Your task to perform on an android device: open a bookmark in the chrome app Image 0: 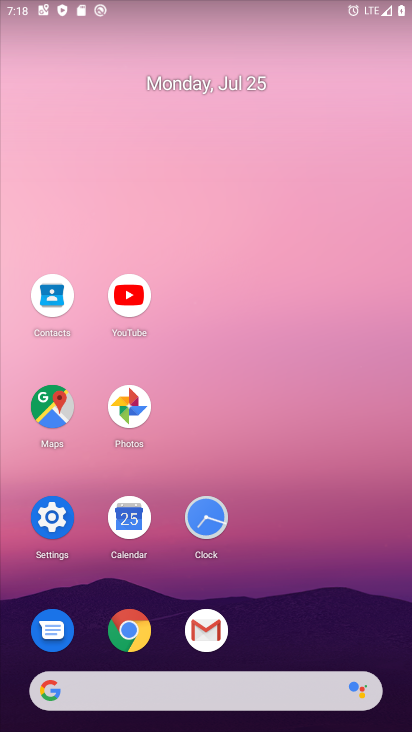
Step 0: click (127, 631)
Your task to perform on an android device: open a bookmark in the chrome app Image 1: 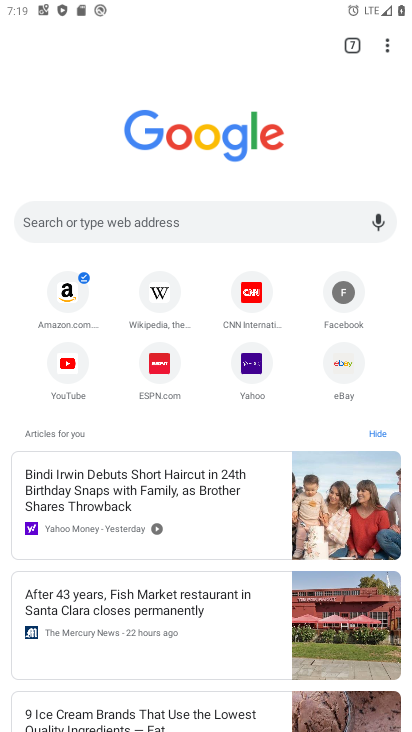
Step 1: click (382, 40)
Your task to perform on an android device: open a bookmark in the chrome app Image 2: 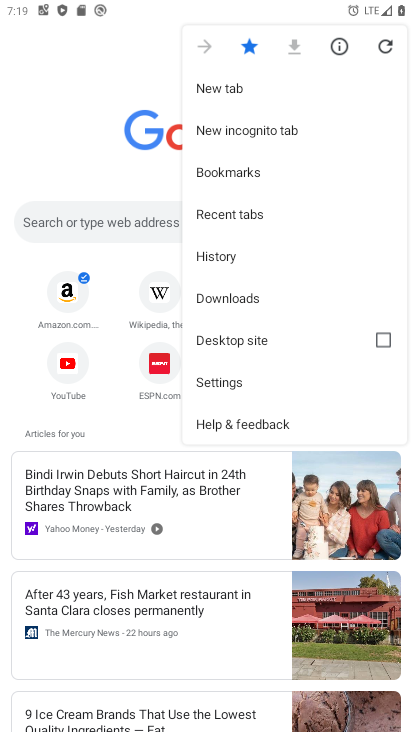
Step 2: click (236, 173)
Your task to perform on an android device: open a bookmark in the chrome app Image 3: 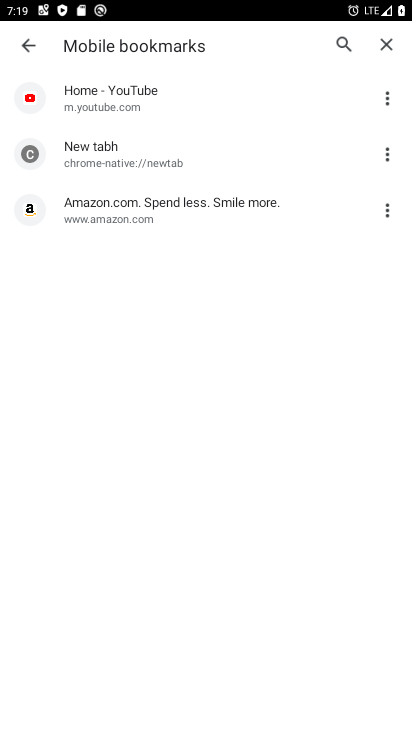
Step 3: task complete